Your task to perform on an android device: Open the calendar app, open the side menu, and click the "Day" option Image 0: 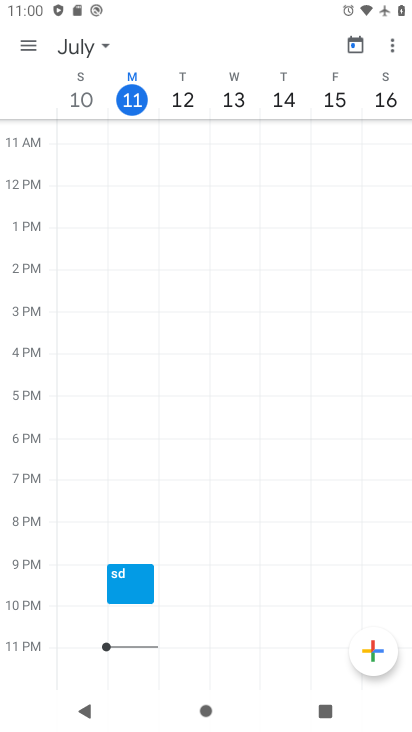
Step 0: press home button
Your task to perform on an android device: Open the calendar app, open the side menu, and click the "Day" option Image 1: 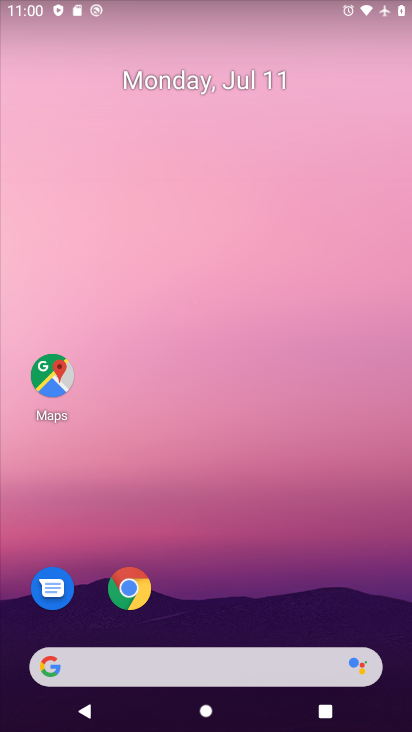
Step 1: drag from (197, 667) to (348, 28)
Your task to perform on an android device: Open the calendar app, open the side menu, and click the "Day" option Image 2: 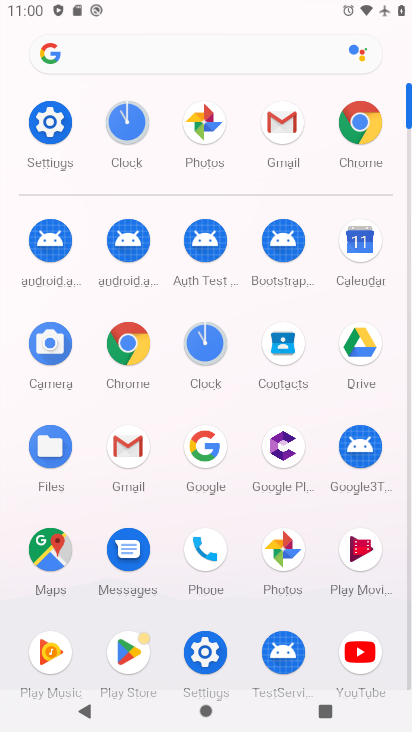
Step 2: click (354, 247)
Your task to perform on an android device: Open the calendar app, open the side menu, and click the "Day" option Image 3: 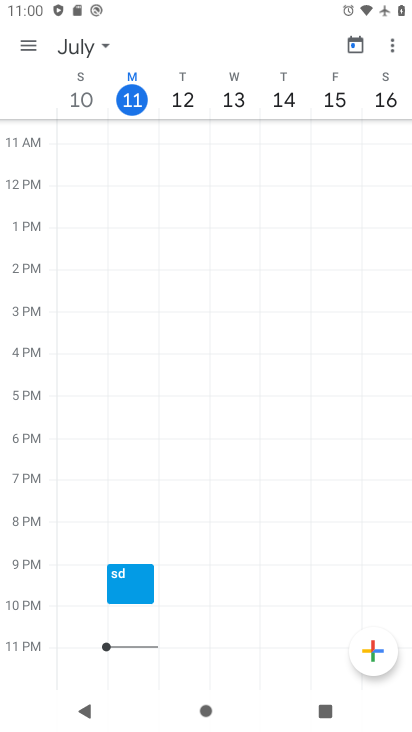
Step 3: click (25, 44)
Your task to perform on an android device: Open the calendar app, open the side menu, and click the "Day" option Image 4: 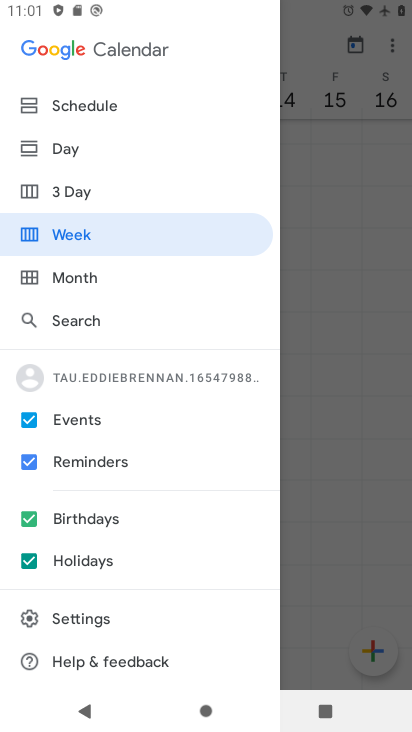
Step 4: click (58, 147)
Your task to perform on an android device: Open the calendar app, open the side menu, and click the "Day" option Image 5: 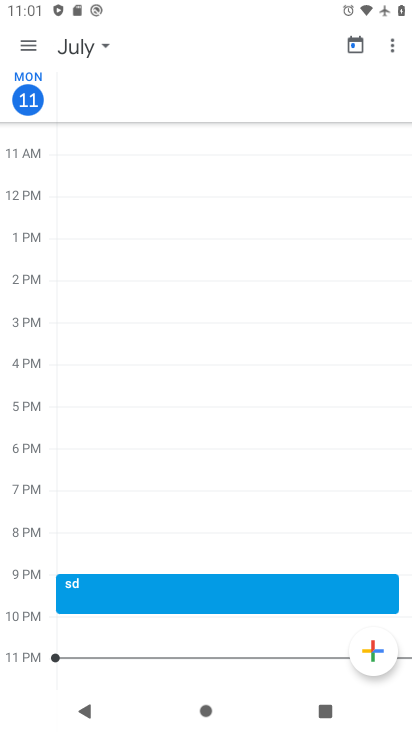
Step 5: task complete